Your task to perform on an android device: change your default location settings in chrome Image 0: 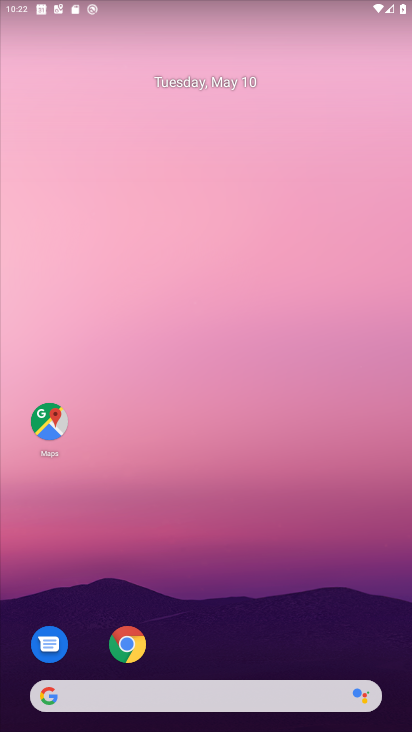
Step 0: drag from (253, 667) to (274, 366)
Your task to perform on an android device: change your default location settings in chrome Image 1: 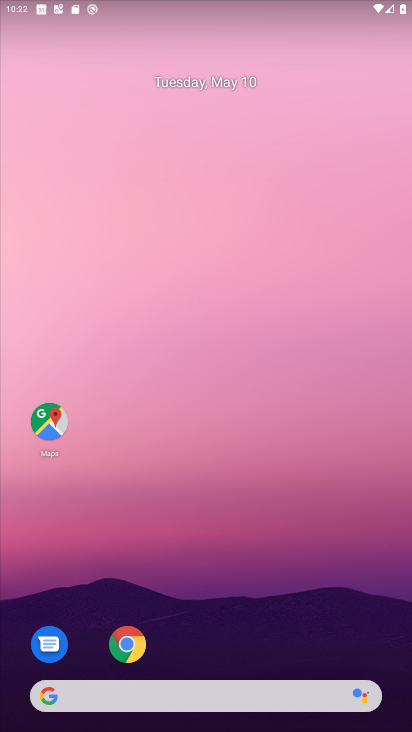
Step 1: drag from (281, 612) to (287, 268)
Your task to perform on an android device: change your default location settings in chrome Image 2: 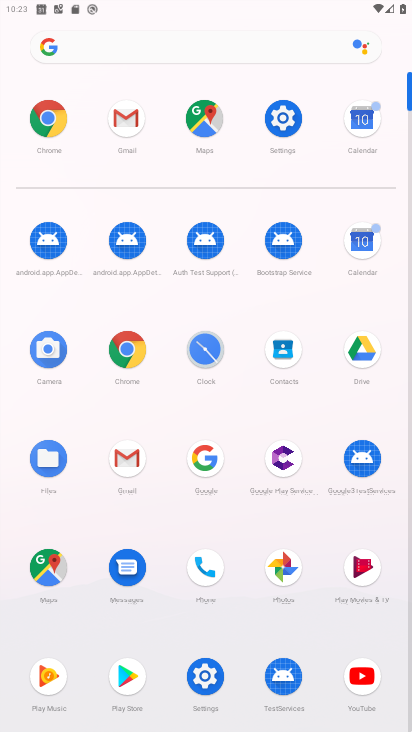
Step 2: click (123, 345)
Your task to perform on an android device: change your default location settings in chrome Image 3: 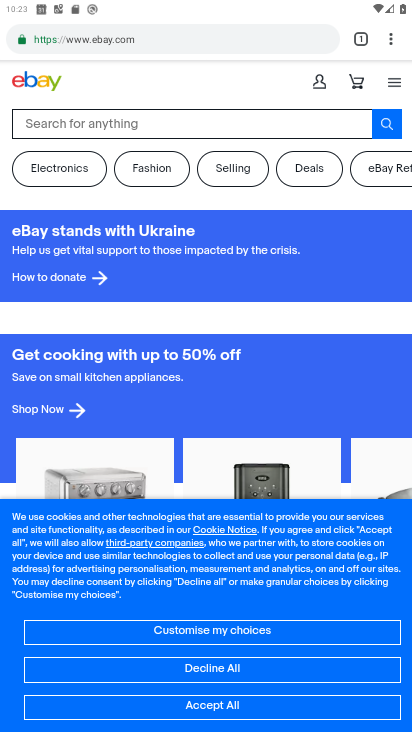
Step 3: click (387, 40)
Your task to perform on an android device: change your default location settings in chrome Image 4: 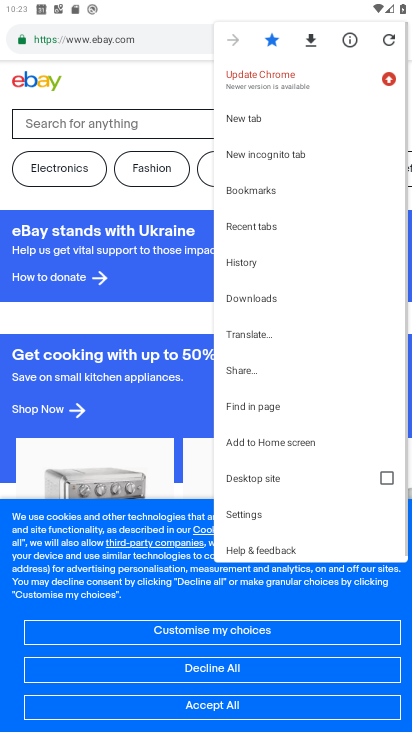
Step 4: drag from (288, 416) to (306, 257)
Your task to perform on an android device: change your default location settings in chrome Image 5: 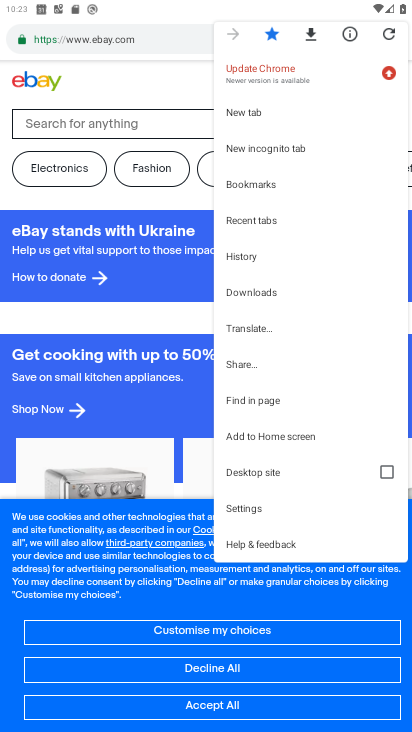
Step 5: click (263, 509)
Your task to perform on an android device: change your default location settings in chrome Image 6: 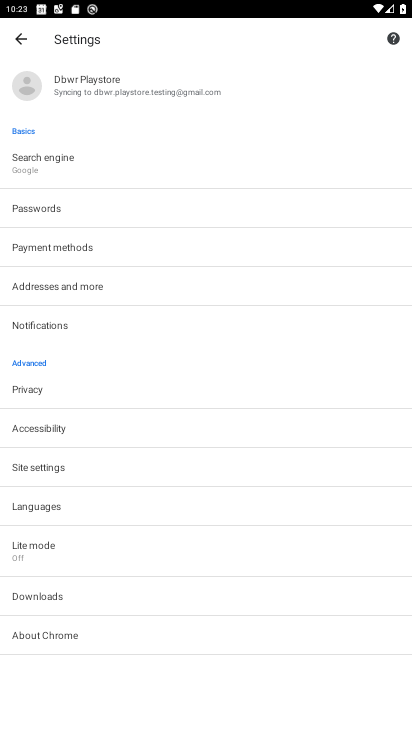
Step 6: click (84, 478)
Your task to perform on an android device: change your default location settings in chrome Image 7: 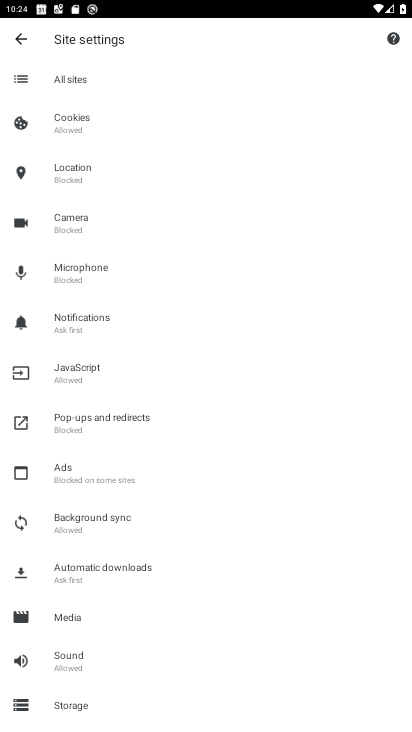
Step 7: click (127, 177)
Your task to perform on an android device: change your default location settings in chrome Image 8: 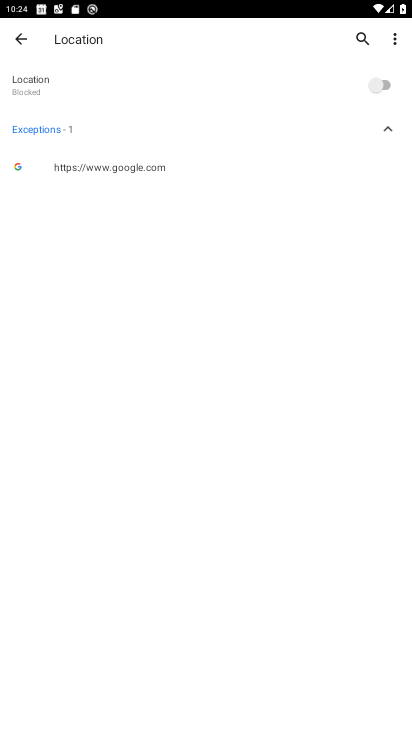
Step 8: click (272, 95)
Your task to perform on an android device: change your default location settings in chrome Image 9: 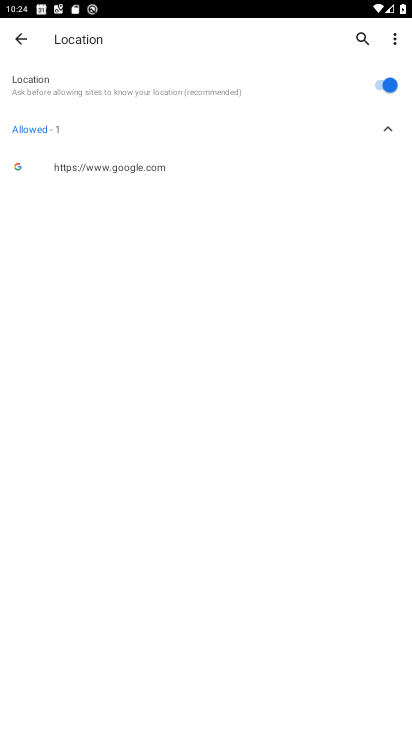
Step 9: task complete